Your task to perform on an android device: Open the Play Movies app and select the watchlist tab. Image 0: 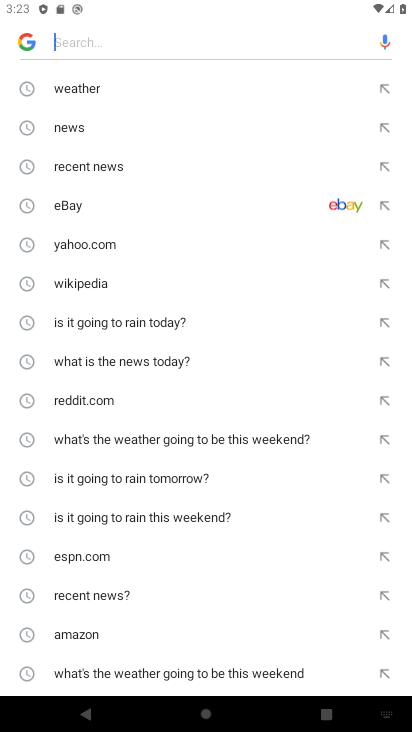
Step 0: press home button
Your task to perform on an android device: Open the Play Movies app and select the watchlist tab. Image 1: 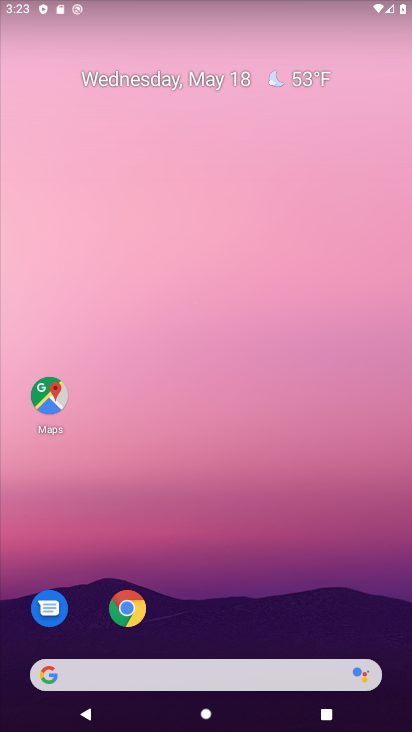
Step 1: click (313, 714)
Your task to perform on an android device: Open the Play Movies app and select the watchlist tab. Image 2: 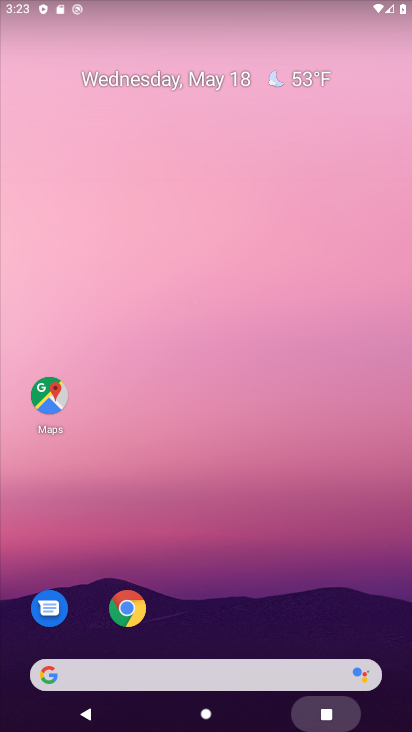
Step 2: drag from (313, 661) to (300, 72)
Your task to perform on an android device: Open the Play Movies app and select the watchlist tab. Image 3: 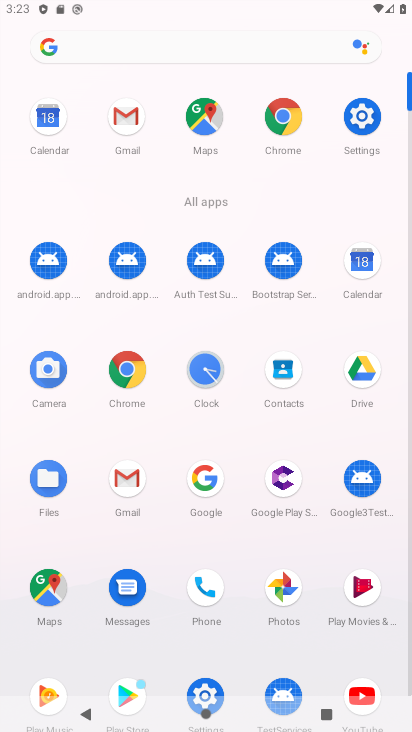
Step 3: drag from (319, 643) to (337, 360)
Your task to perform on an android device: Open the Play Movies app and select the watchlist tab. Image 4: 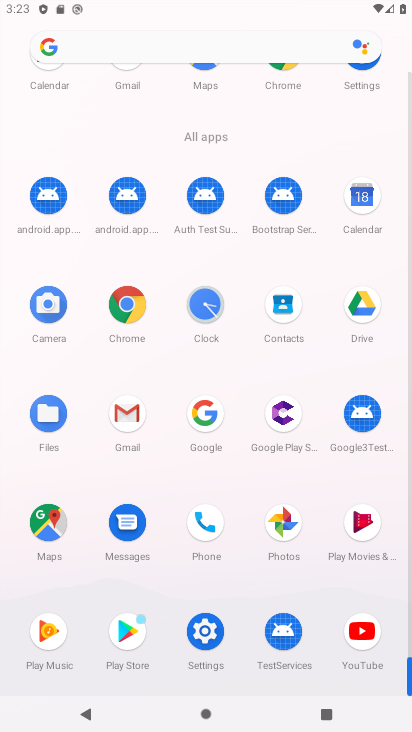
Step 4: click (357, 516)
Your task to perform on an android device: Open the Play Movies app and select the watchlist tab. Image 5: 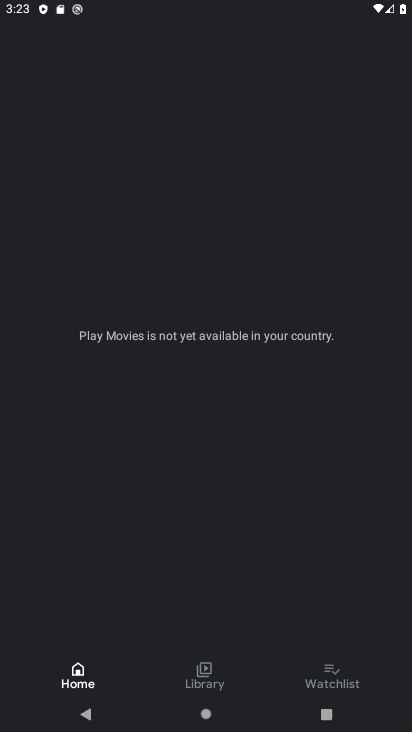
Step 5: click (346, 672)
Your task to perform on an android device: Open the Play Movies app and select the watchlist tab. Image 6: 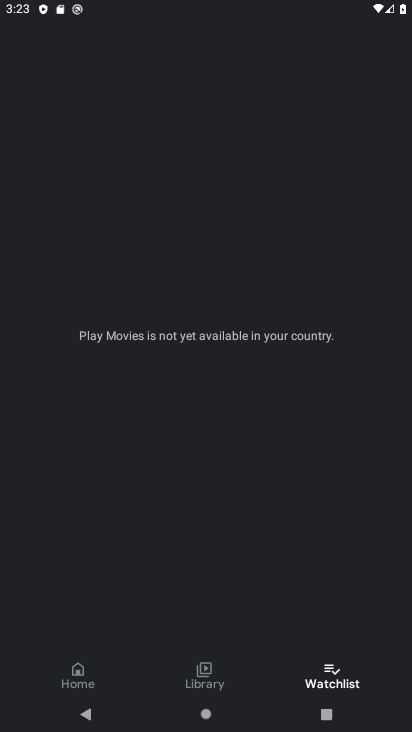
Step 6: task complete